Your task to perform on an android device: Search for the best rated mechanical keyboard on Amazon. Image 0: 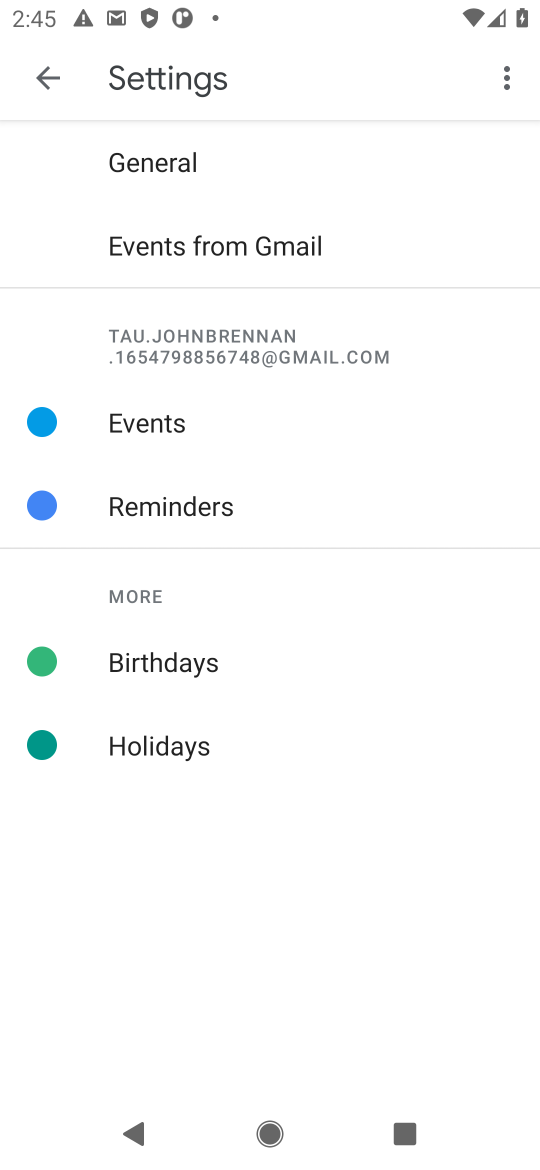
Step 0: press home button
Your task to perform on an android device: Search for the best rated mechanical keyboard on Amazon. Image 1: 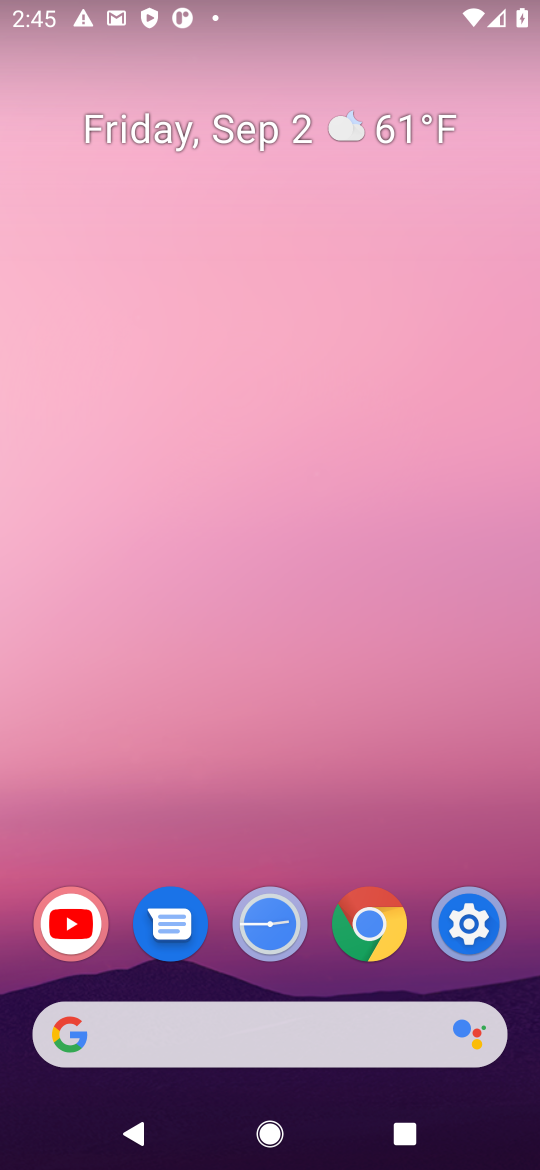
Step 1: click (345, 1026)
Your task to perform on an android device: Search for the best rated mechanical keyboard on Amazon. Image 2: 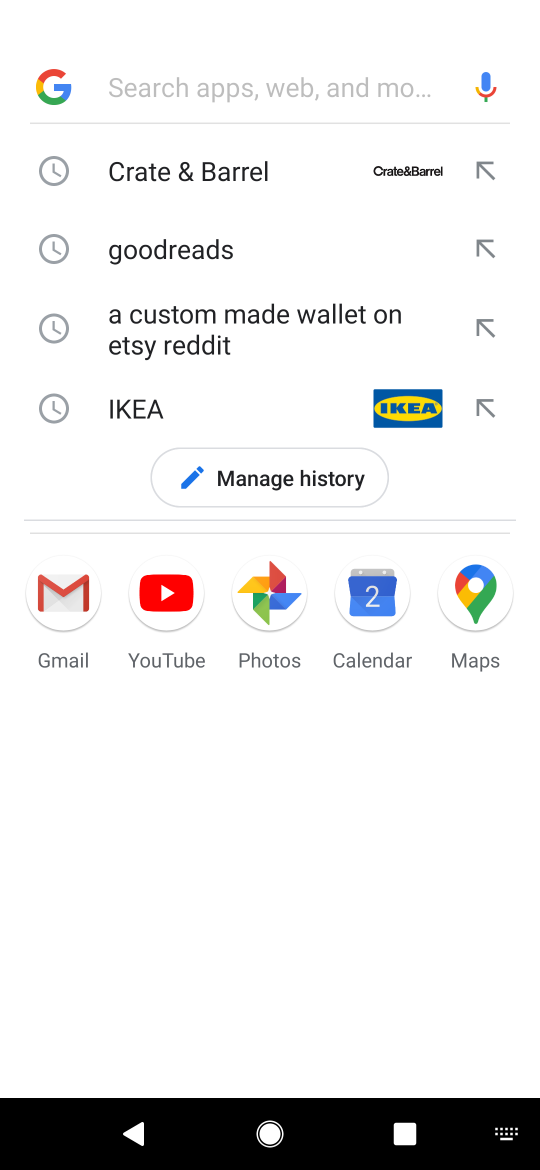
Step 2: press enter
Your task to perform on an android device: Search for the best rated mechanical keyboard on Amazon. Image 3: 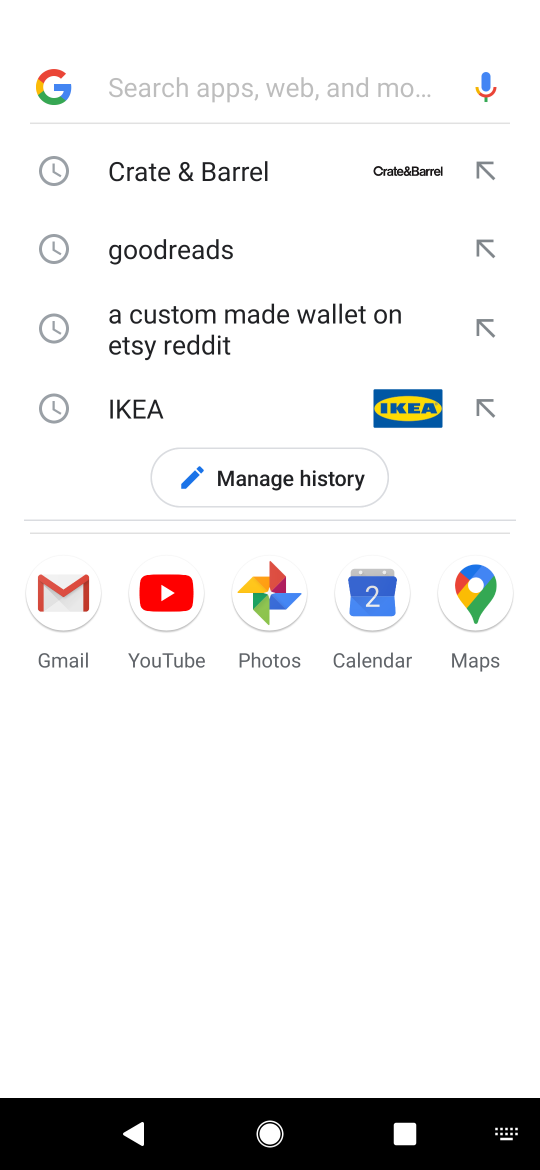
Step 3: type "amazon"
Your task to perform on an android device: Search for the best rated mechanical keyboard on Amazon. Image 4: 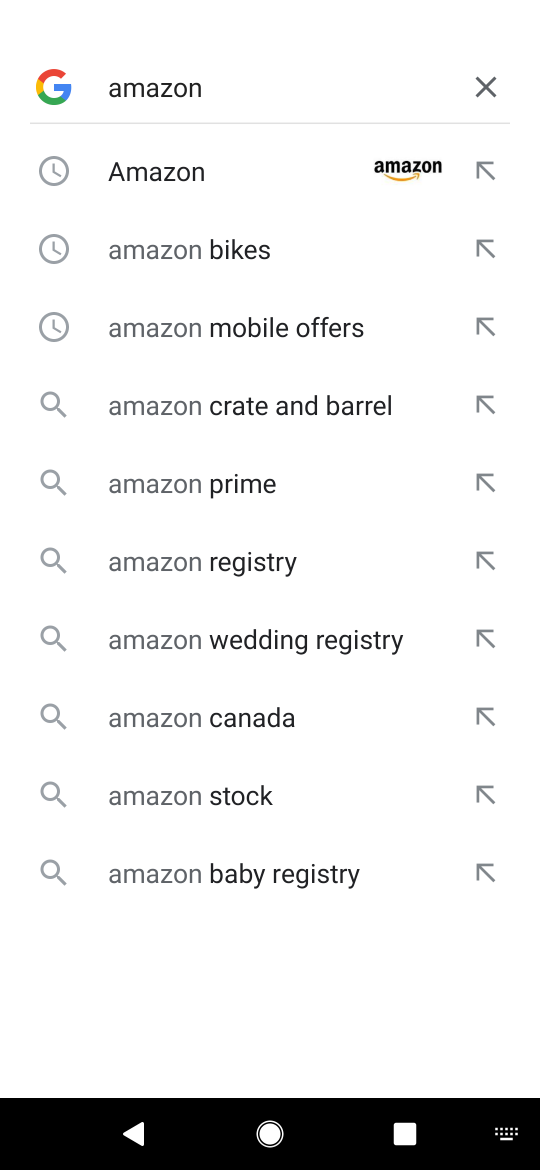
Step 4: click (238, 170)
Your task to perform on an android device: Search for the best rated mechanical keyboard on Amazon. Image 5: 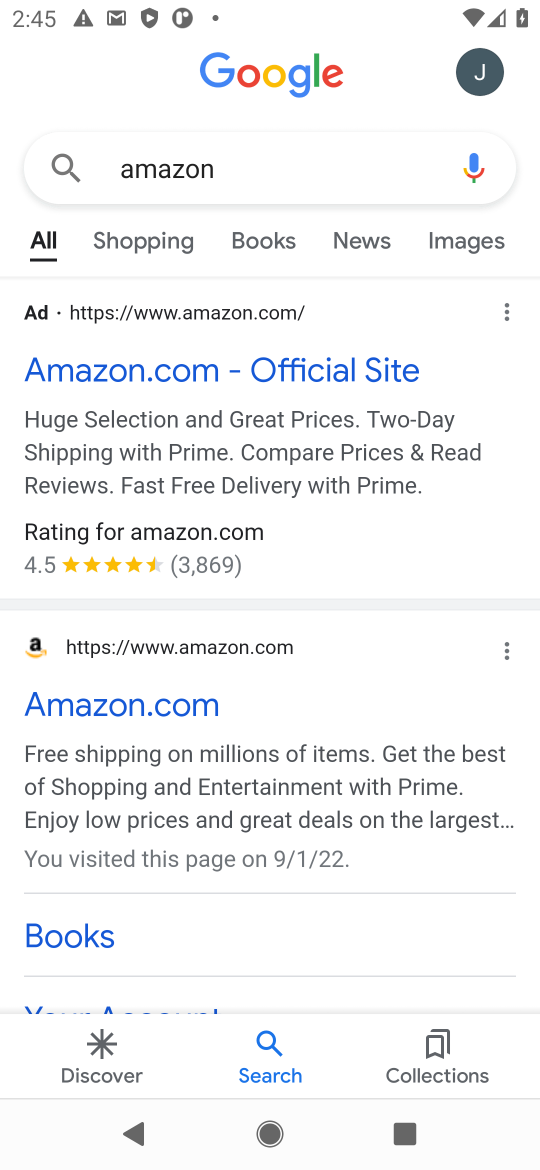
Step 5: click (330, 369)
Your task to perform on an android device: Search for the best rated mechanical keyboard on Amazon. Image 6: 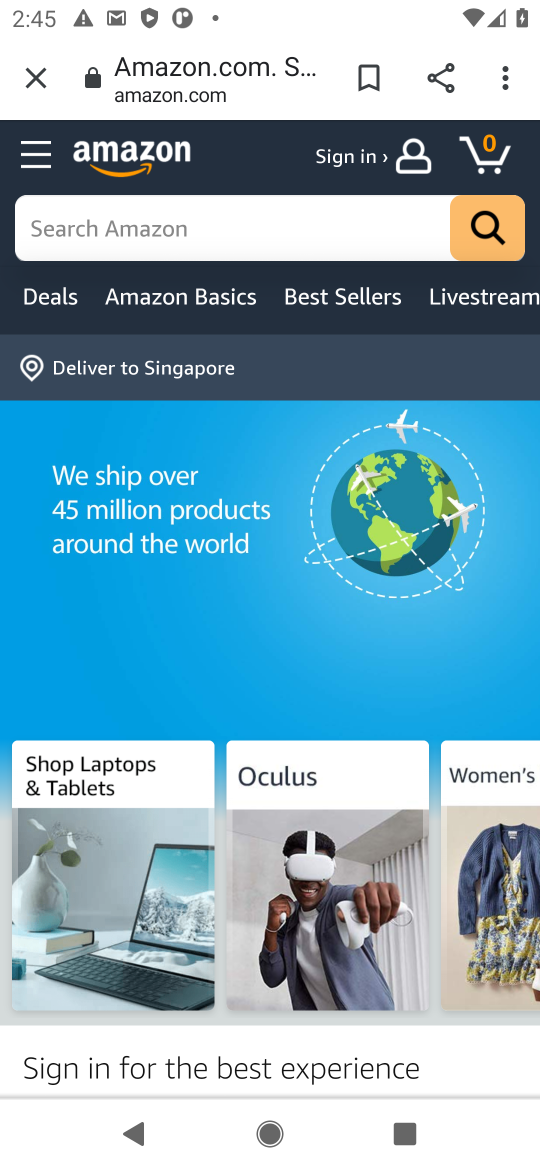
Step 6: click (220, 213)
Your task to perform on an android device: Search for the best rated mechanical keyboard on Amazon. Image 7: 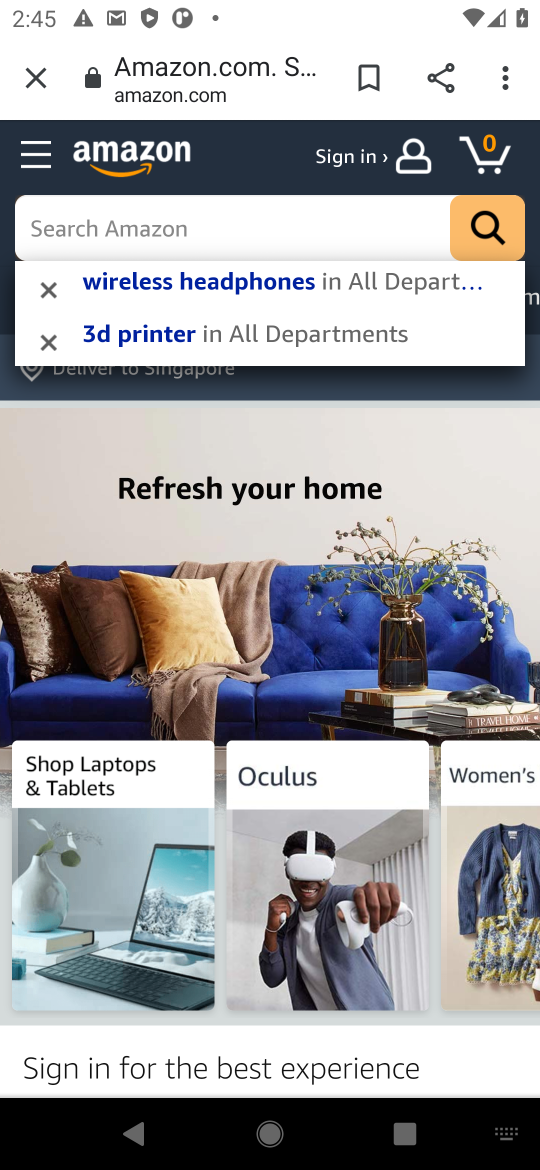
Step 7: type "mechanical keyboard"
Your task to perform on an android device: Search for the best rated mechanical keyboard on Amazon. Image 8: 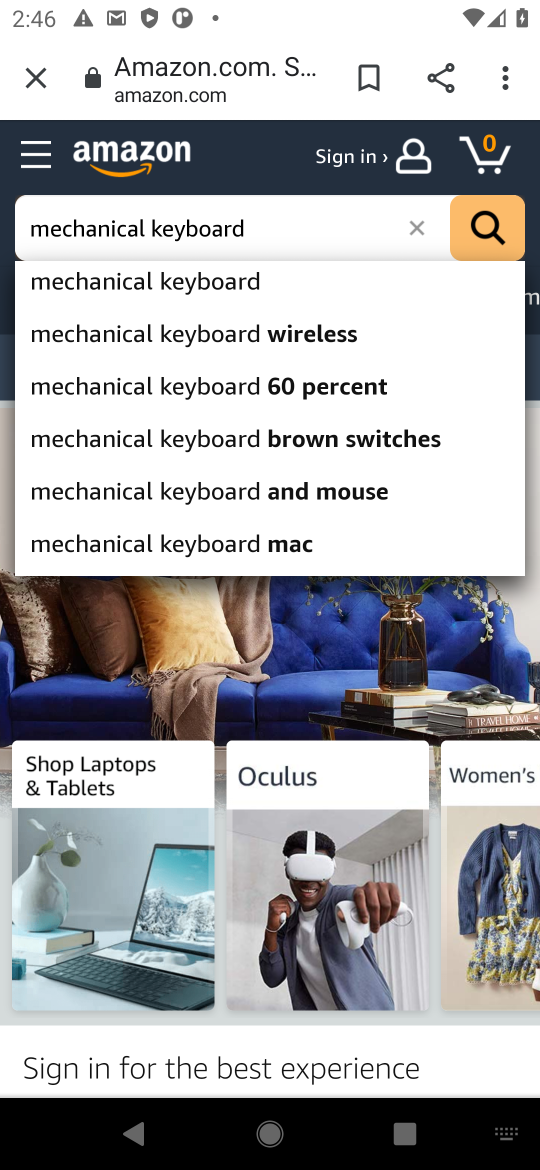
Step 8: click (237, 280)
Your task to perform on an android device: Search for the best rated mechanical keyboard on Amazon. Image 9: 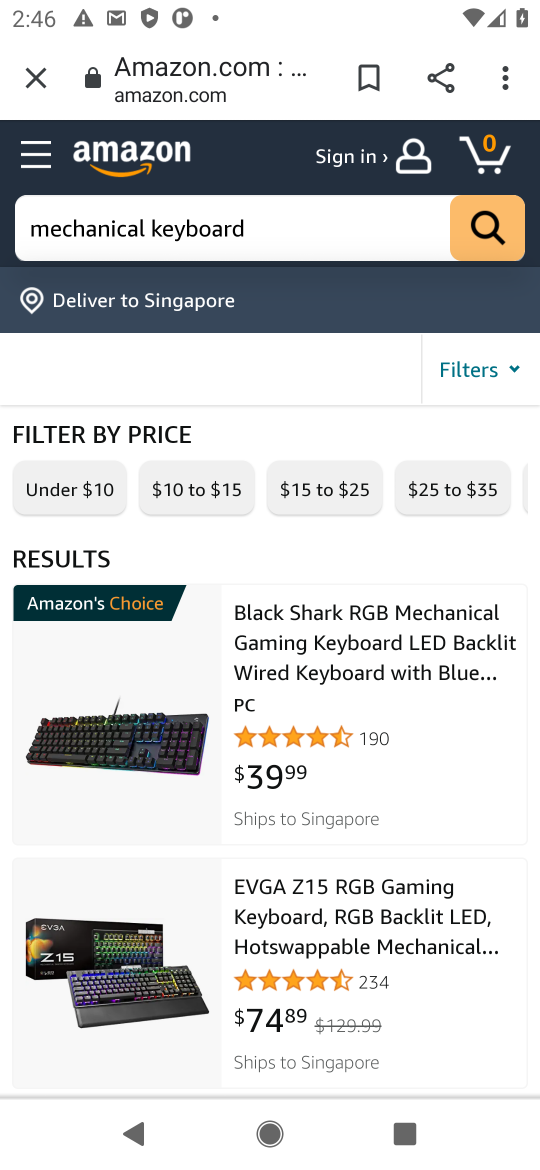
Step 9: task complete